Your task to perform on an android device: open a bookmark in the chrome app Image 0: 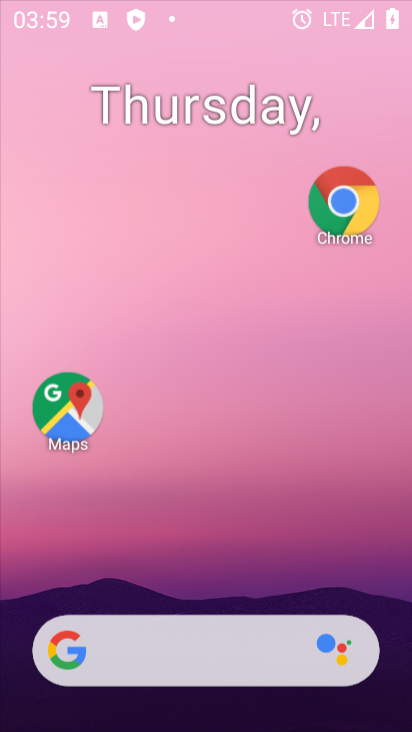
Step 0: drag from (260, 697) to (333, 5)
Your task to perform on an android device: open a bookmark in the chrome app Image 1: 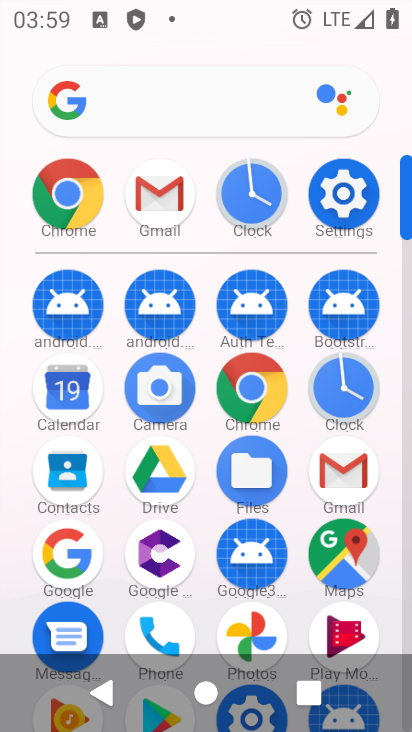
Step 1: click (346, 192)
Your task to perform on an android device: open a bookmark in the chrome app Image 2: 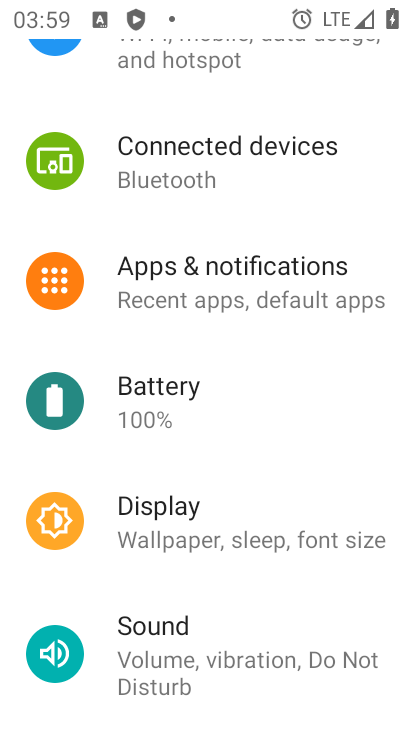
Step 2: press home button
Your task to perform on an android device: open a bookmark in the chrome app Image 3: 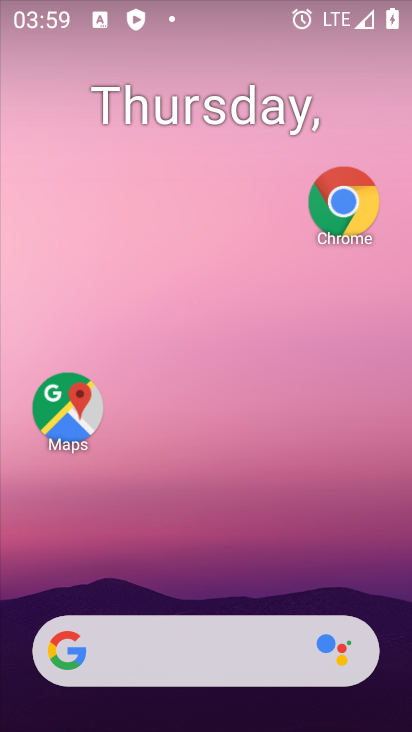
Step 3: drag from (243, 659) to (253, 64)
Your task to perform on an android device: open a bookmark in the chrome app Image 4: 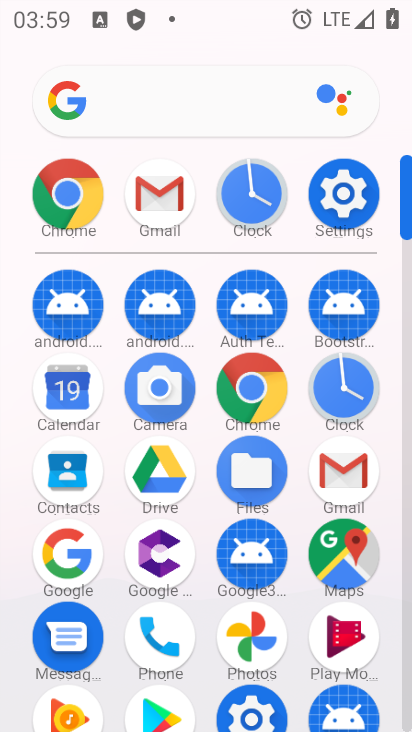
Step 4: click (270, 395)
Your task to perform on an android device: open a bookmark in the chrome app Image 5: 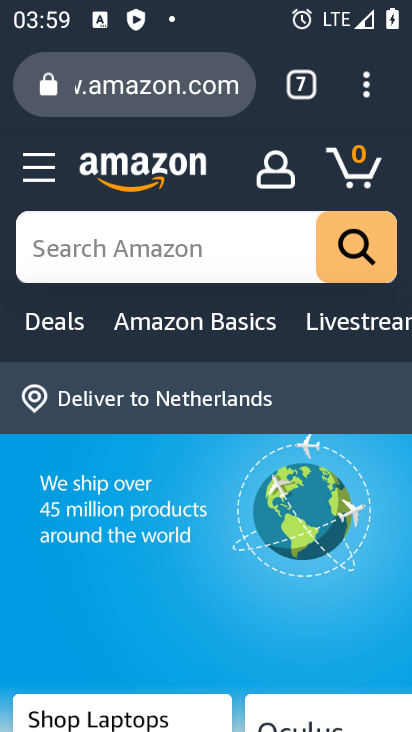
Step 5: click (363, 85)
Your task to perform on an android device: open a bookmark in the chrome app Image 6: 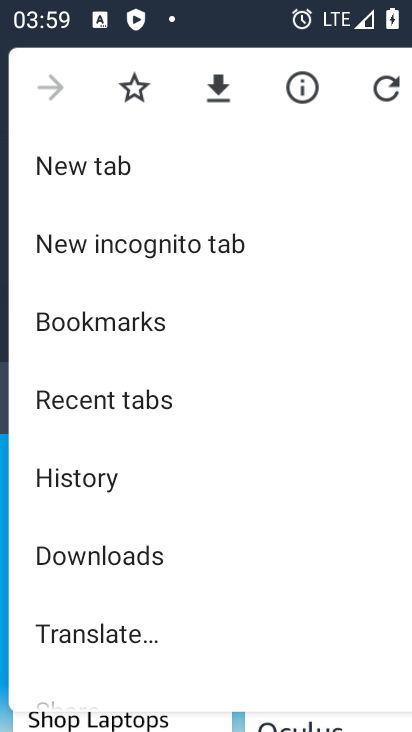
Step 6: click (177, 324)
Your task to perform on an android device: open a bookmark in the chrome app Image 7: 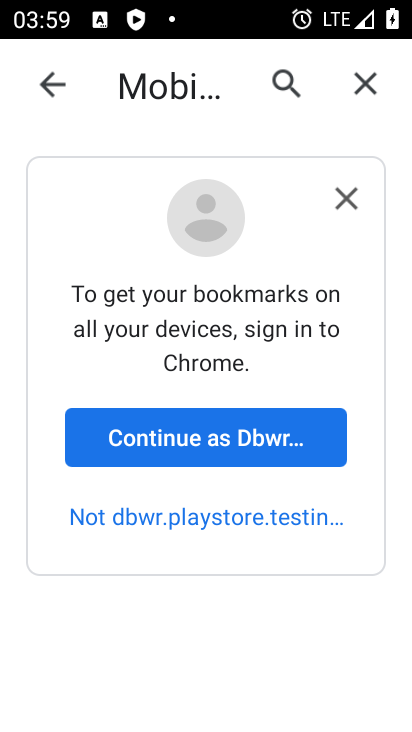
Step 7: task complete